Your task to perform on an android device: Open calendar and show me the third week of next month Image 0: 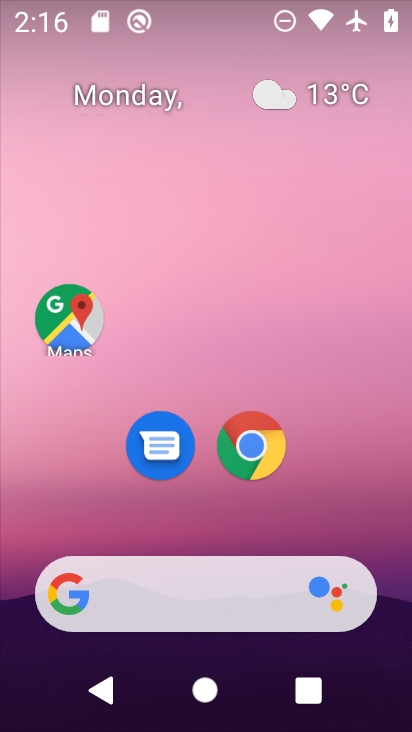
Step 0: drag from (392, 619) to (329, 87)
Your task to perform on an android device: Open calendar and show me the third week of next month Image 1: 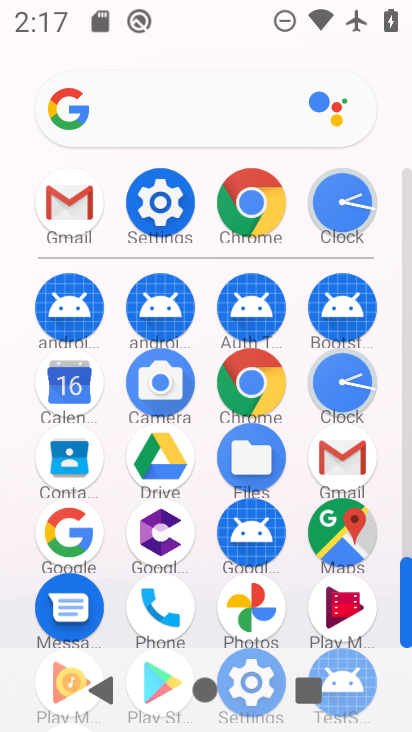
Step 1: click (86, 395)
Your task to perform on an android device: Open calendar and show me the third week of next month Image 2: 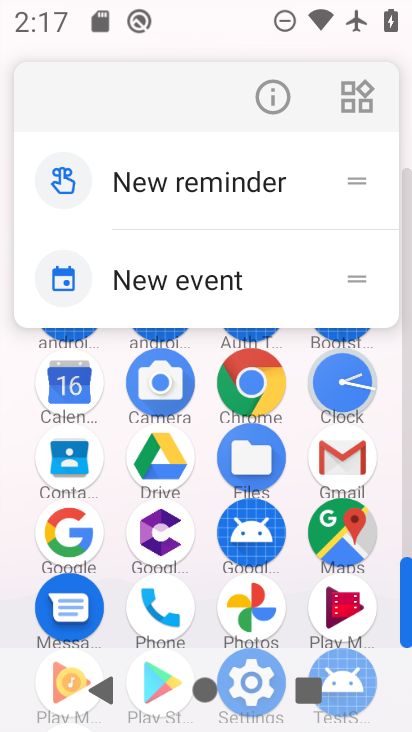
Step 2: click (76, 390)
Your task to perform on an android device: Open calendar and show me the third week of next month Image 3: 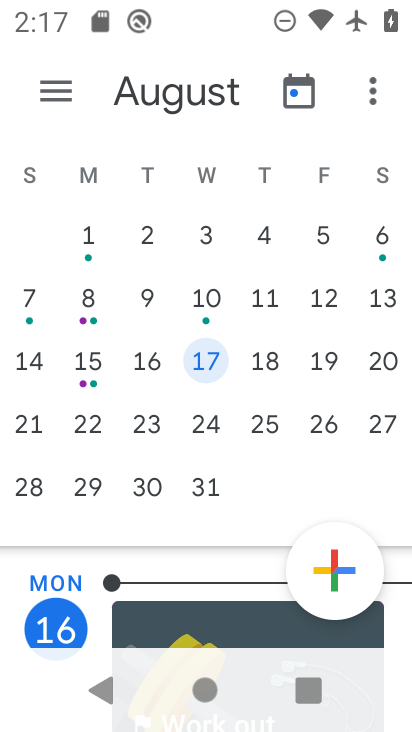
Step 3: drag from (353, 365) to (29, 316)
Your task to perform on an android device: Open calendar and show me the third week of next month Image 4: 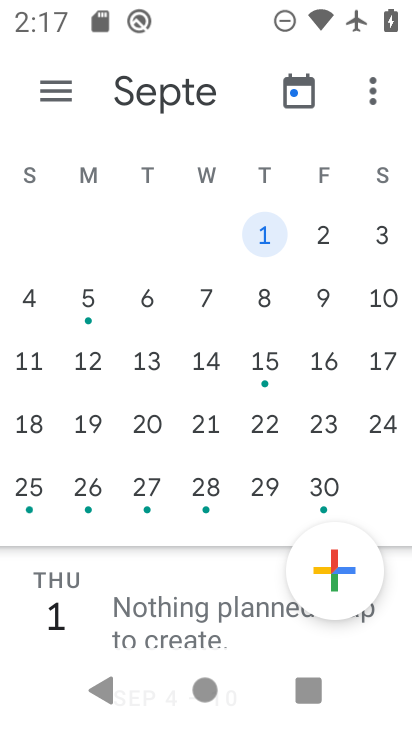
Step 4: click (203, 429)
Your task to perform on an android device: Open calendar and show me the third week of next month Image 5: 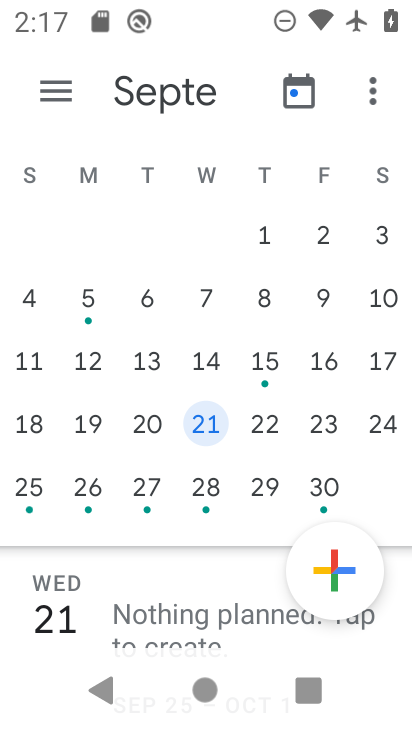
Step 5: task complete